Your task to perform on an android device: Go to Google maps Image 0: 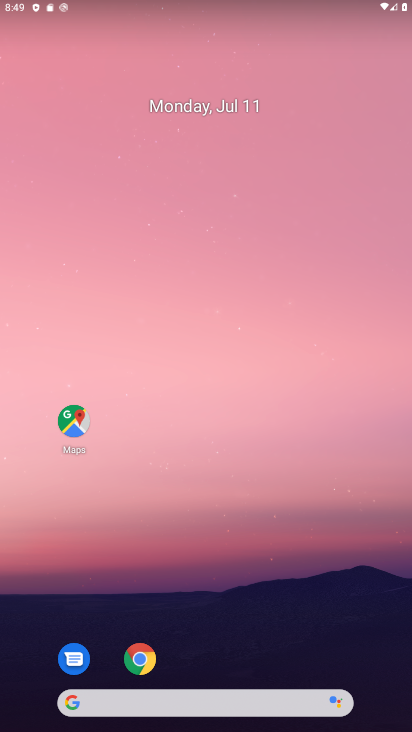
Step 0: drag from (230, 725) to (204, 226)
Your task to perform on an android device: Go to Google maps Image 1: 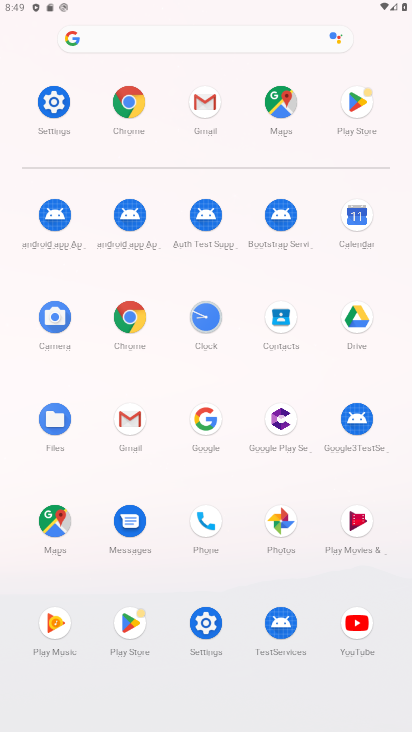
Step 1: click (56, 524)
Your task to perform on an android device: Go to Google maps Image 2: 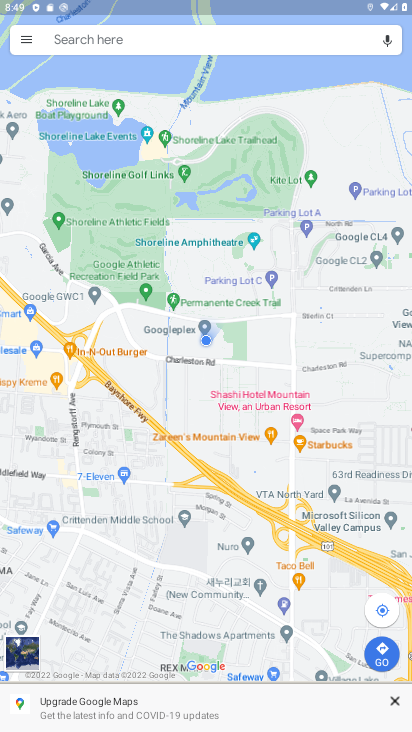
Step 2: task complete